Your task to perform on an android device: turn off airplane mode Image 0: 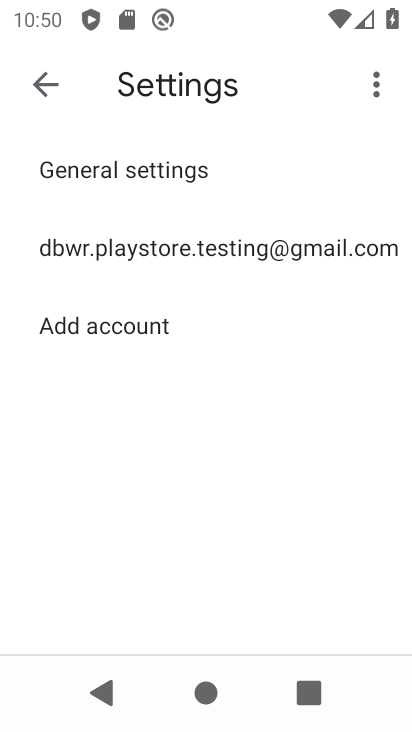
Step 0: press home button
Your task to perform on an android device: turn off airplane mode Image 1: 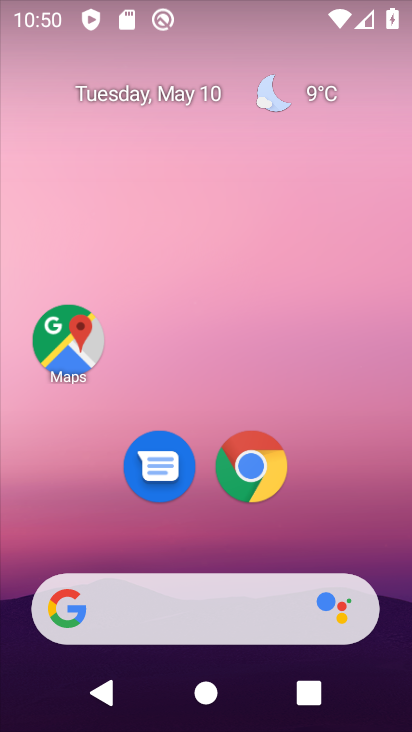
Step 1: drag from (234, 544) to (253, 5)
Your task to perform on an android device: turn off airplane mode Image 2: 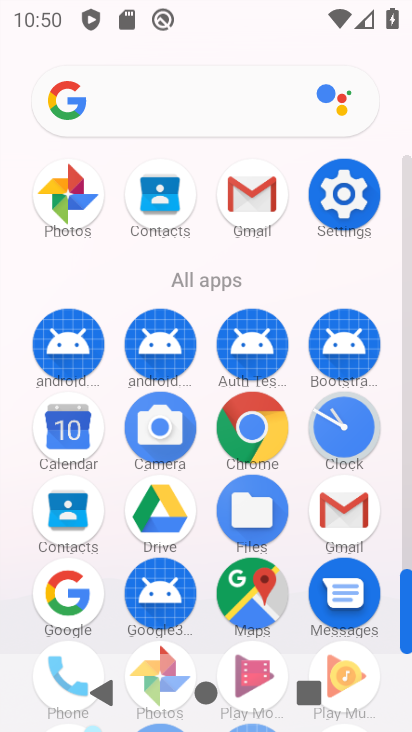
Step 2: click (345, 169)
Your task to perform on an android device: turn off airplane mode Image 3: 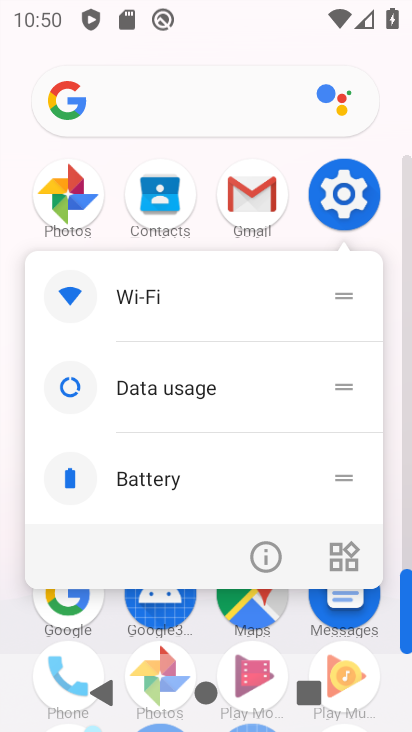
Step 3: click (345, 169)
Your task to perform on an android device: turn off airplane mode Image 4: 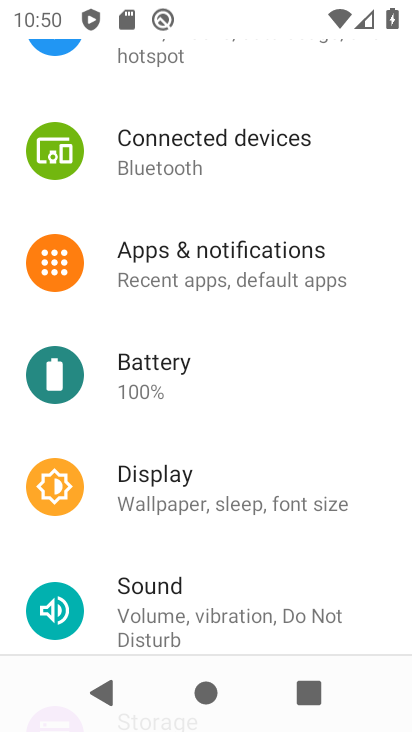
Step 4: drag from (253, 314) to (279, 561)
Your task to perform on an android device: turn off airplane mode Image 5: 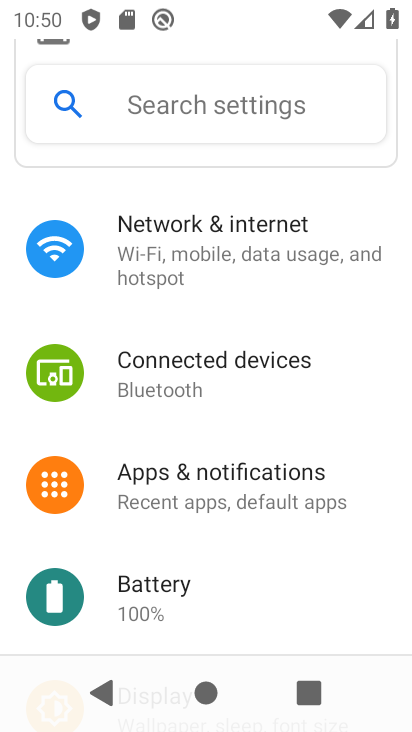
Step 5: click (260, 224)
Your task to perform on an android device: turn off airplane mode Image 6: 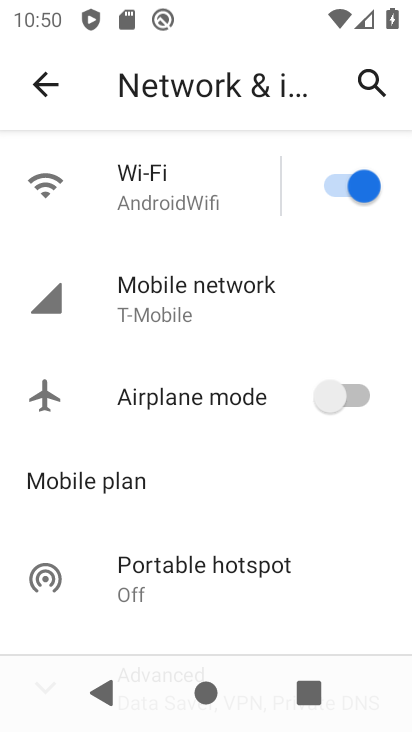
Step 6: task complete